Your task to perform on an android device: Is it going to rain today? Image 0: 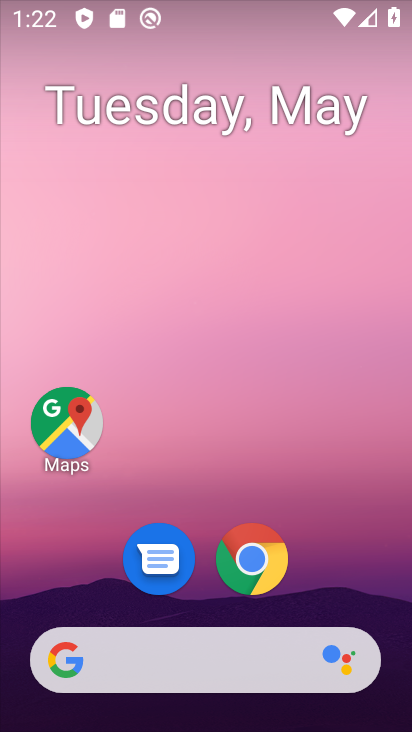
Step 0: drag from (389, 645) to (251, 72)
Your task to perform on an android device: Is it going to rain today? Image 1: 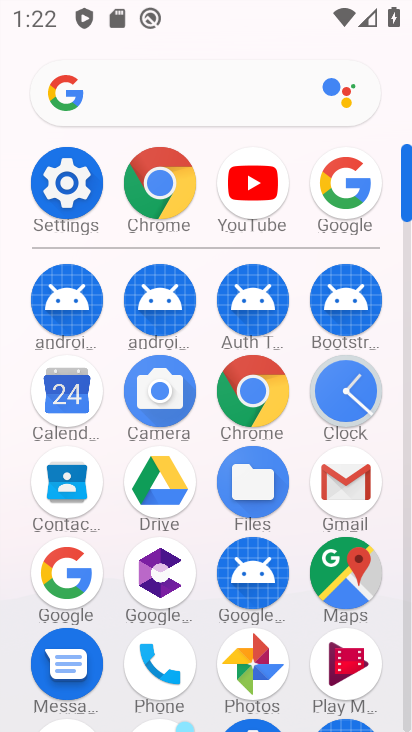
Step 1: click (91, 583)
Your task to perform on an android device: Is it going to rain today? Image 2: 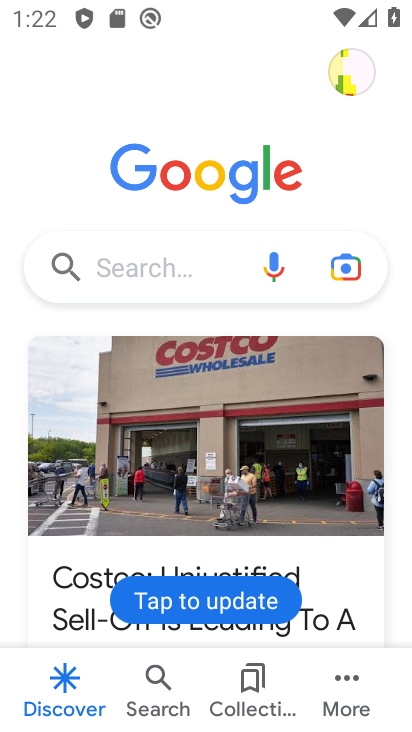
Step 2: click (156, 273)
Your task to perform on an android device: Is it going to rain today? Image 3: 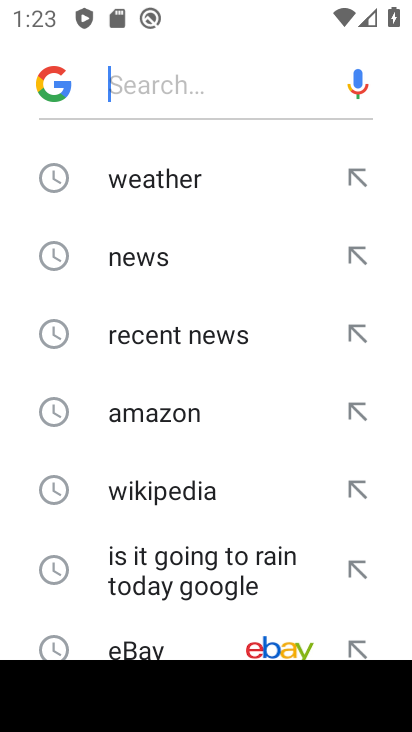
Step 3: click (185, 573)
Your task to perform on an android device: Is it going to rain today? Image 4: 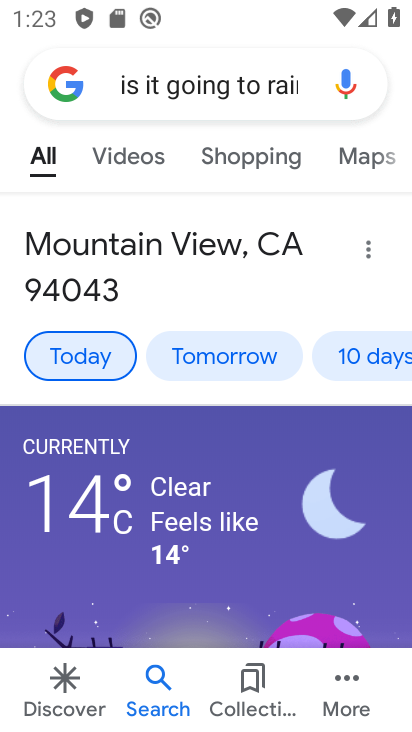
Step 4: task complete